Your task to perform on an android device: refresh tabs in the chrome app Image 0: 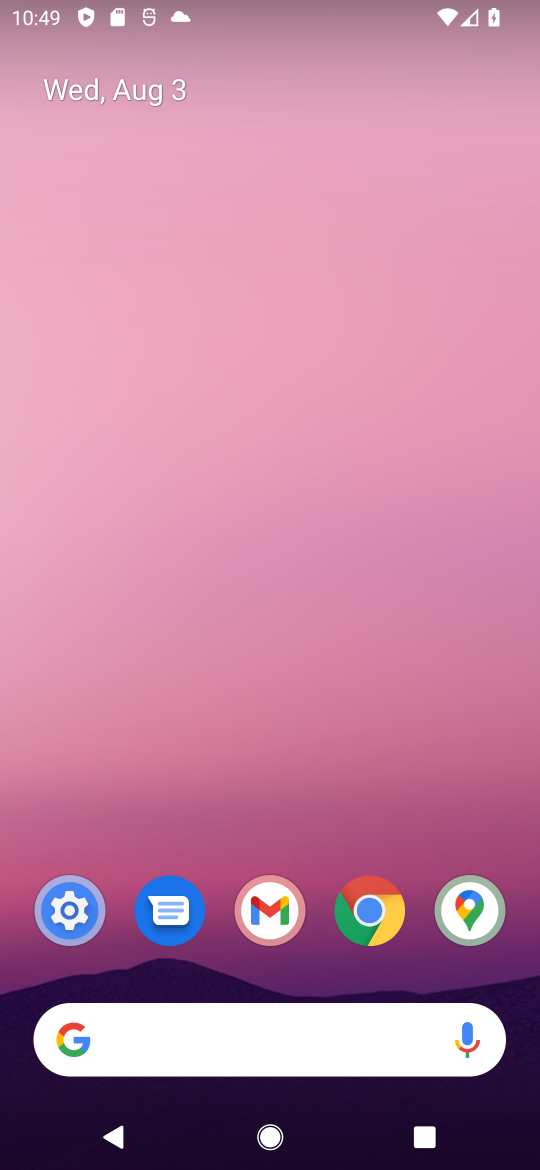
Step 0: press home button
Your task to perform on an android device: refresh tabs in the chrome app Image 1: 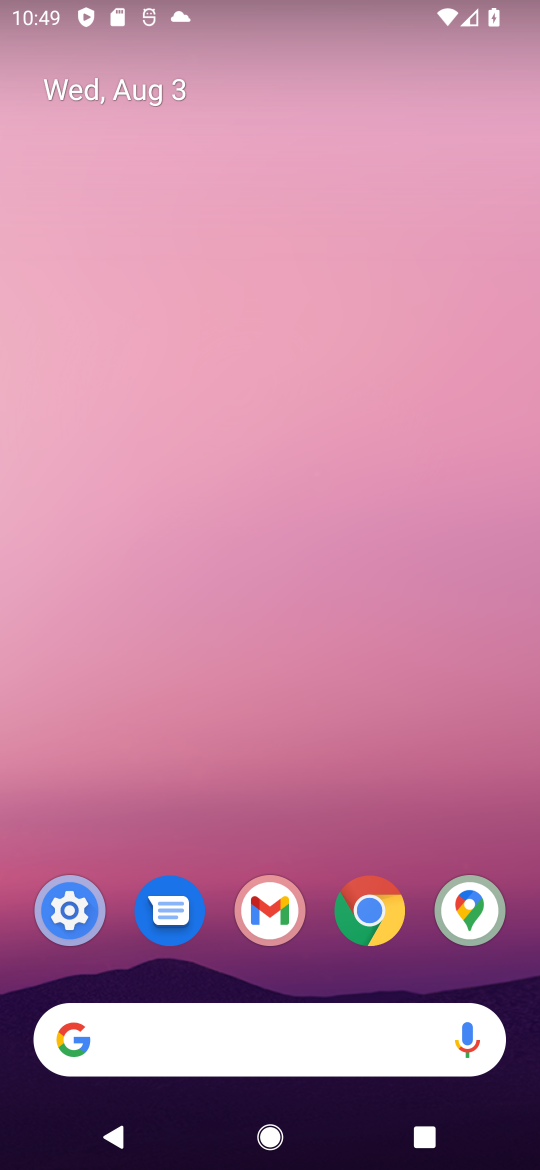
Step 1: click (365, 896)
Your task to perform on an android device: refresh tabs in the chrome app Image 2: 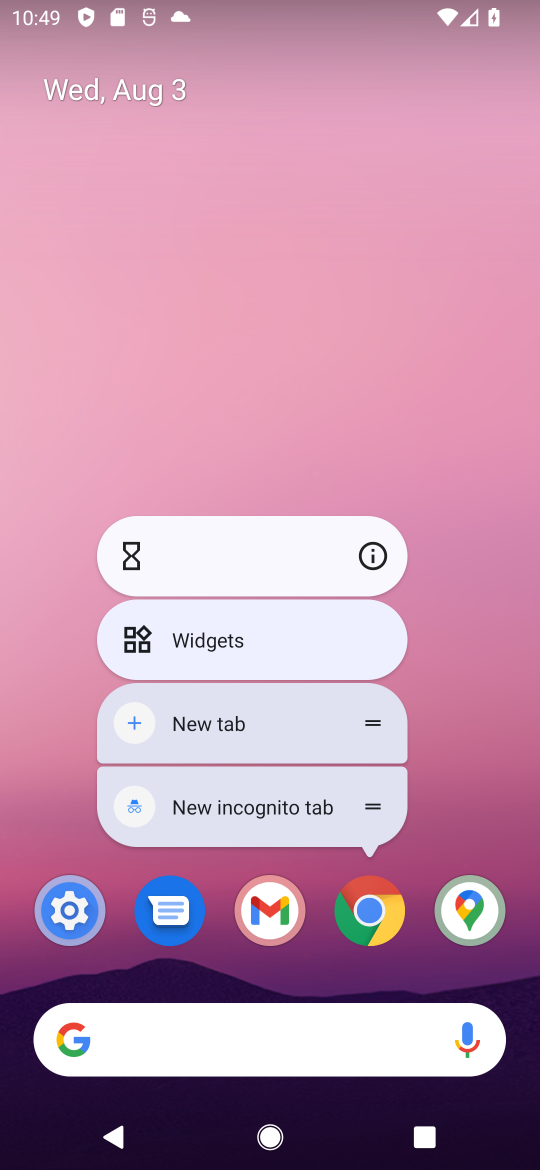
Step 2: click (366, 905)
Your task to perform on an android device: refresh tabs in the chrome app Image 3: 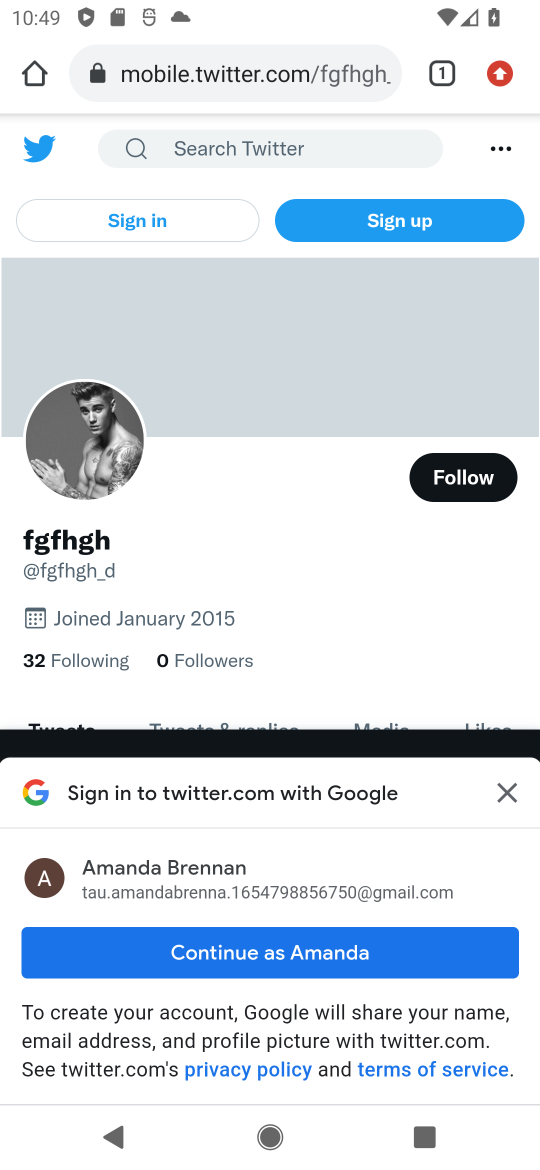
Step 3: click (506, 792)
Your task to perform on an android device: refresh tabs in the chrome app Image 4: 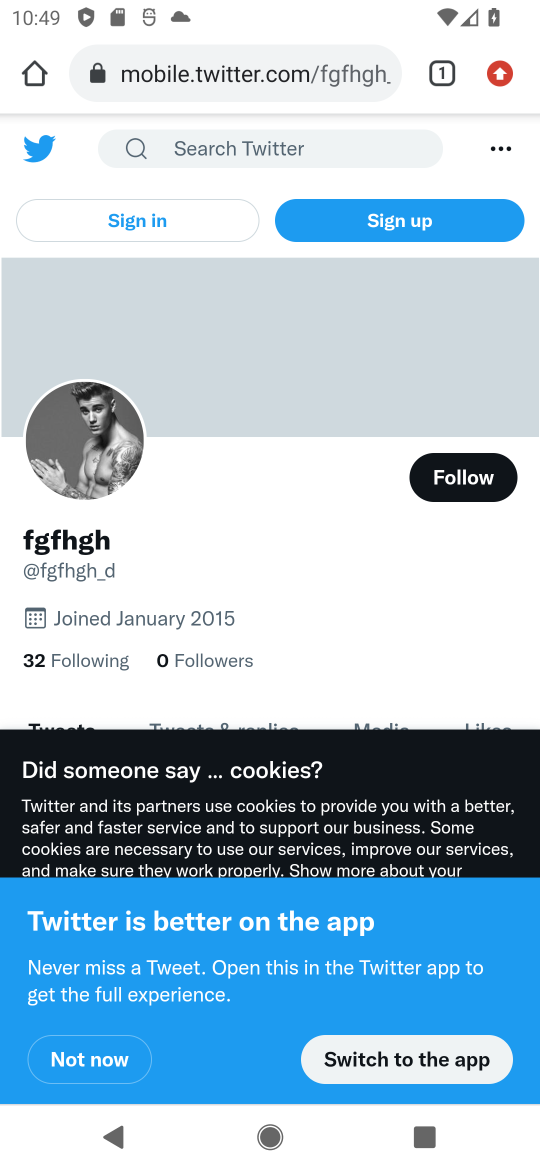
Step 4: click (498, 73)
Your task to perform on an android device: refresh tabs in the chrome app Image 5: 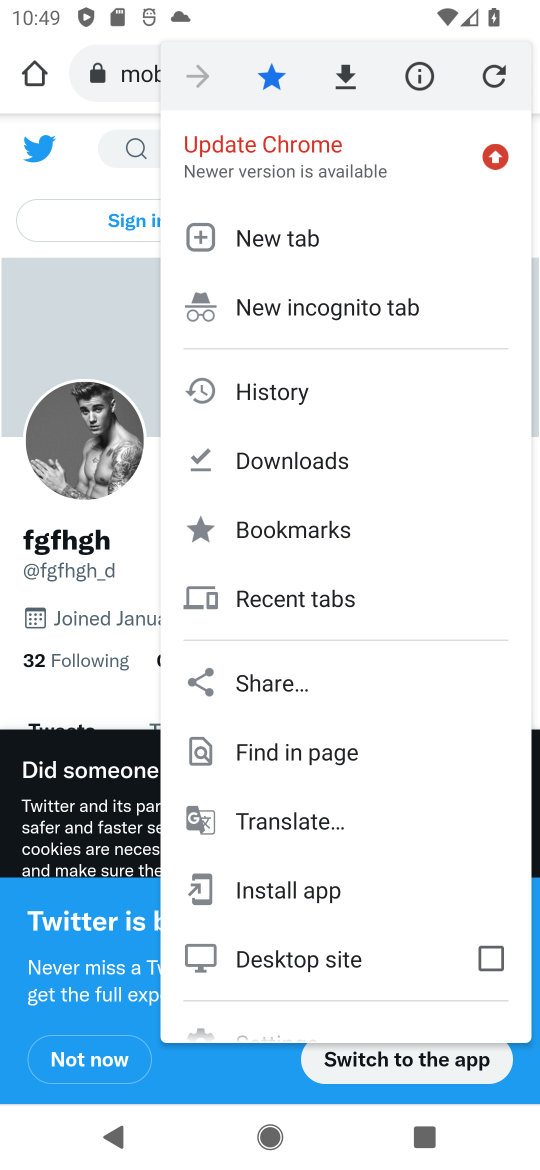
Step 5: click (500, 73)
Your task to perform on an android device: refresh tabs in the chrome app Image 6: 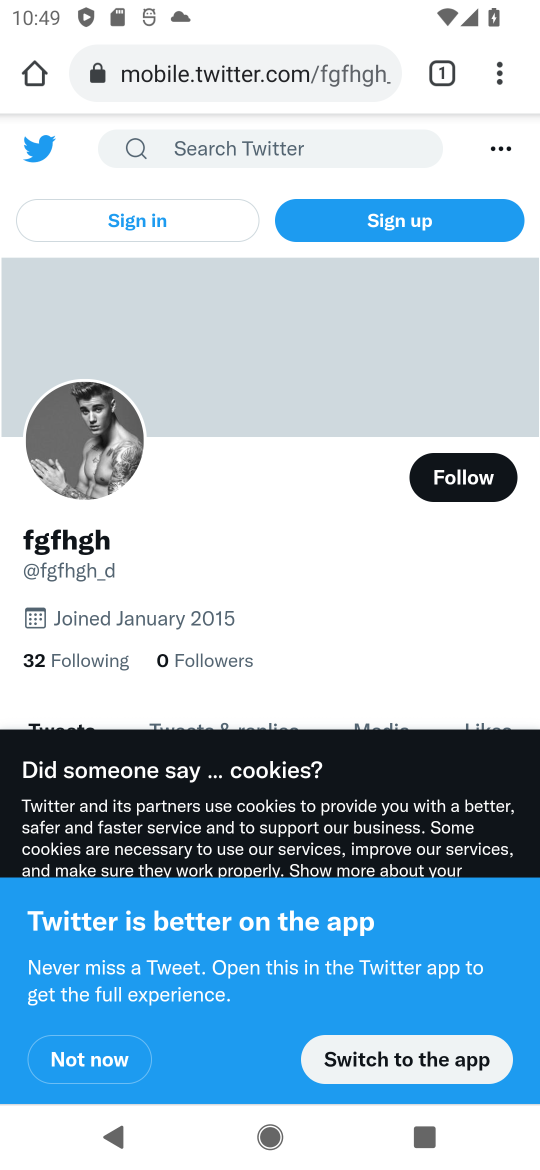
Step 6: task complete